Your task to perform on an android device: stop showing notifications on the lock screen Image 0: 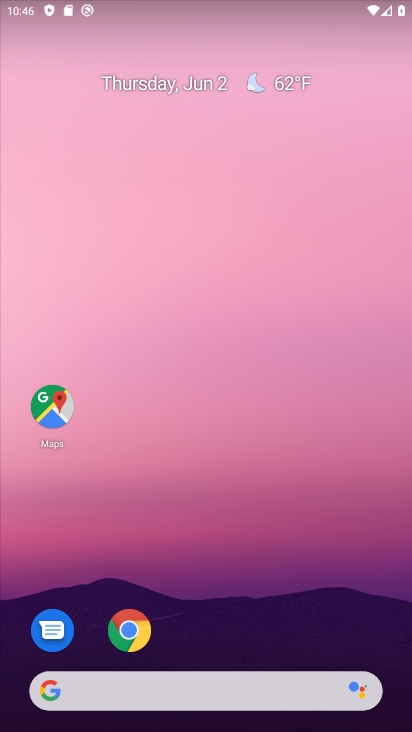
Step 0: press home button
Your task to perform on an android device: stop showing notifications on the lock screen Image 1: 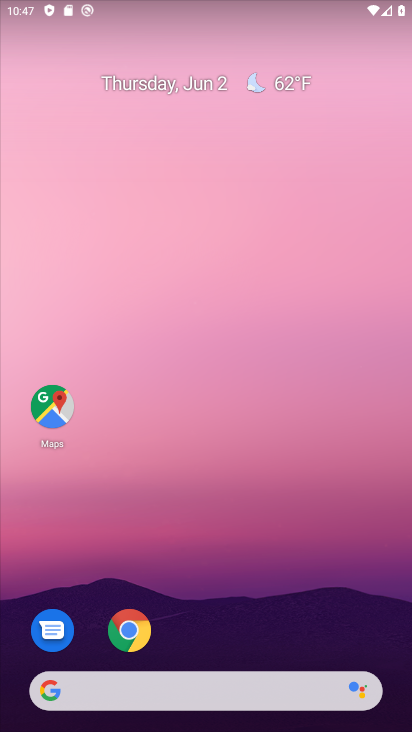
Step 1: drag from (119, 696) to (279, 46)
Your task to perform on an android device: stop showing notifications on the lock screen Image 2: 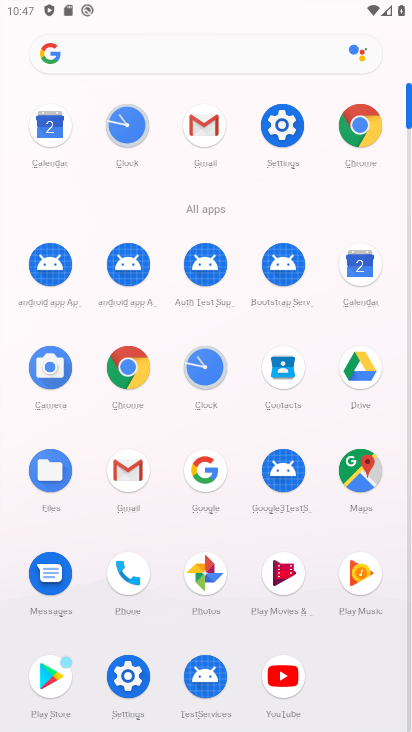
Step 2: click (287, 126)
Your task to perform on an android device: stop showing notifications on the lock screen Image 3: 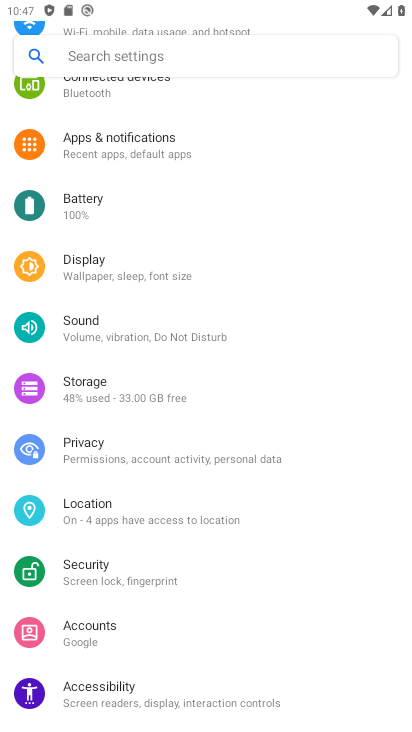
Step 3: click (134, 141)
Your task to perform on an android device: stop showing notifications on the lock screen Image 4: 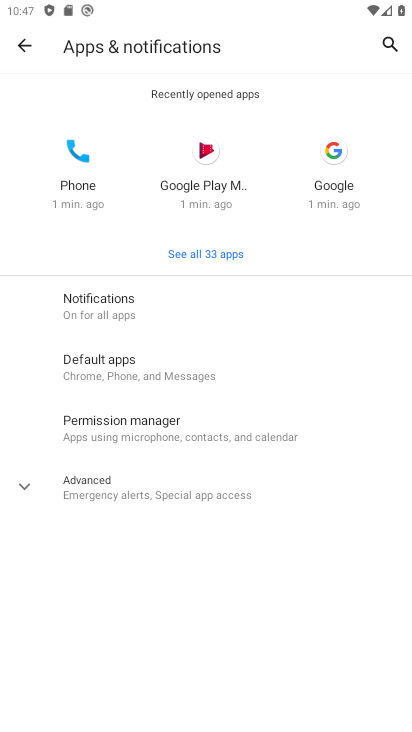
Step 4: click (113, 311)
Your task to perform on an android device: stop showing notifications on the lock screen Image 5: 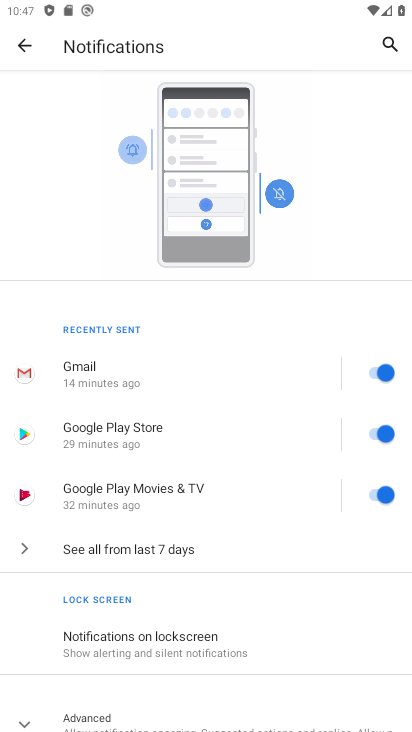
Step 5: drag from (229, 623) to (252, 412)
Your task to perform on an android device: stop showing notifications on the lock screen Image 6: 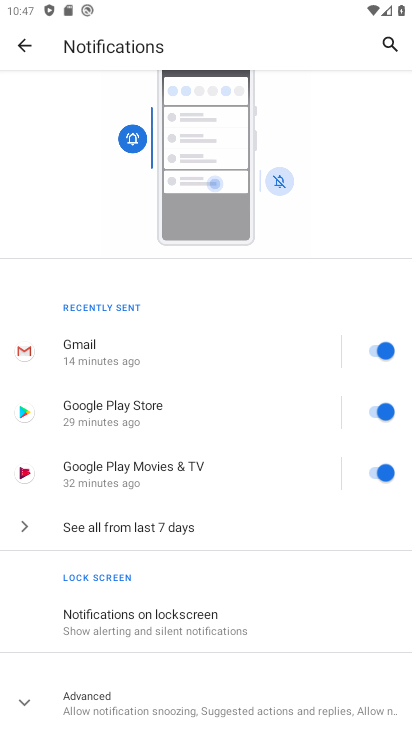
Step 6: click (128, 616)
Your task to perform on an android device: stop showing notifications on the lock screen Image 7: 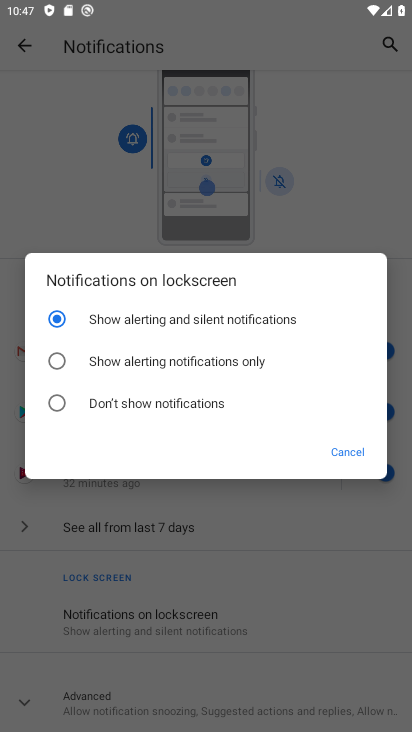
Step 7: click (49, 404)
Your task to perform on an android device: stop showing notifications on the lock screen Image 8: 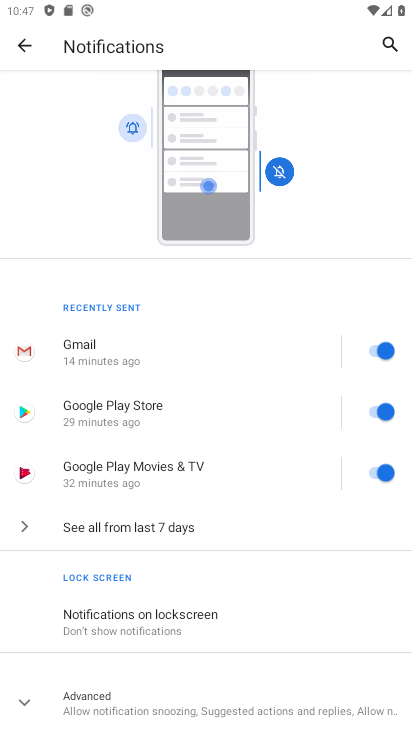
Step 8: task complete